Your task to perform on an android device: change alarm snooze length Image 0: 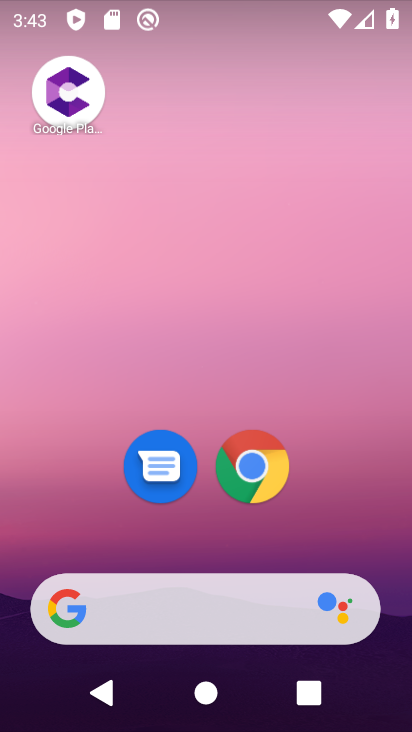
Step 0: drag from (205, 641) to (327, 199)
Your task to perform on an android device: change alarm snooze length Image 1: 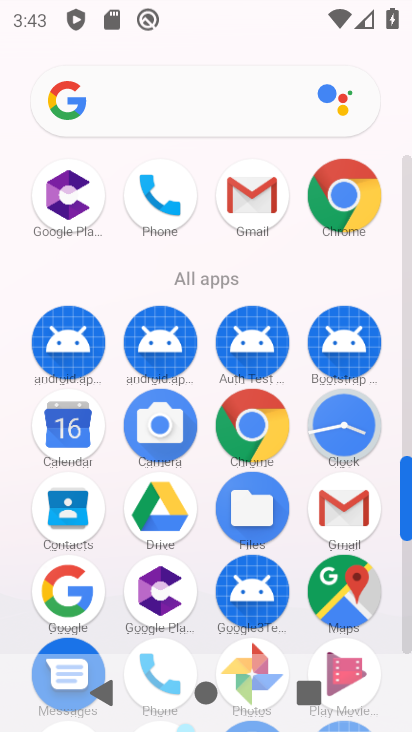
Step 1: click (335, 427)
Your task to perform on an android device: change alarm snooze length Image 2: 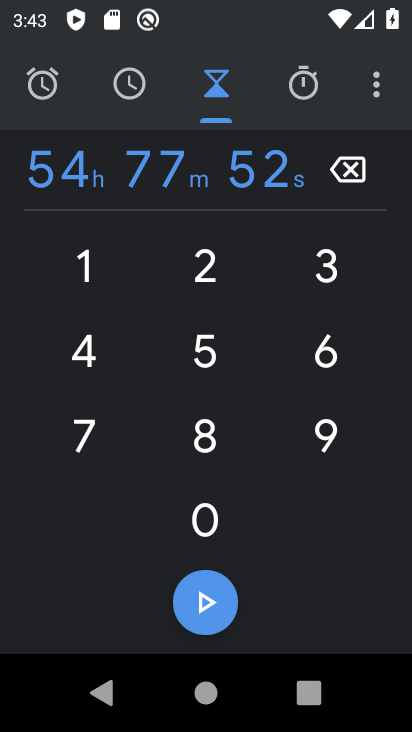
Step 2: click (366, 91)
Your task to perform on an android device: change alarm snooze length Image 3: 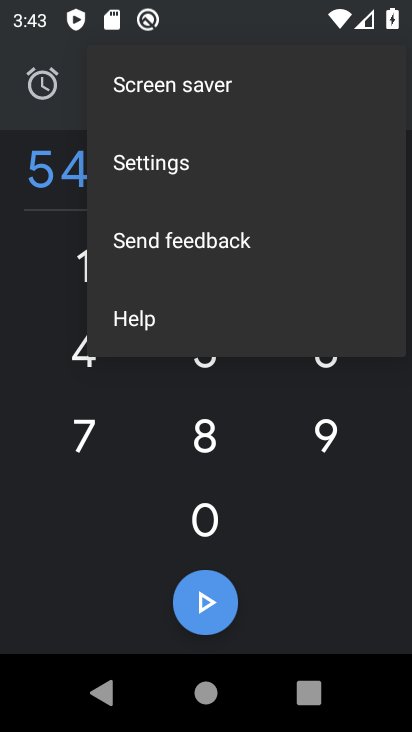
Step 3: click (226, 163)
Your task to perform on an android device: change alarm snooze length Image 4: 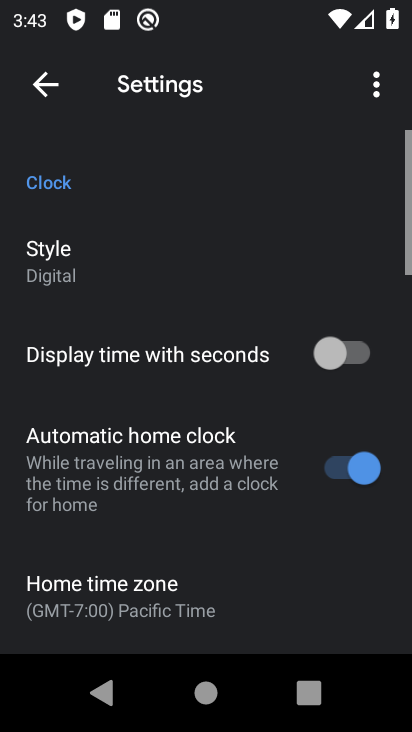
Step 4: drag from (157, 521) to (240, 180)
Your task to perform on an android device: change alarm snooze length Image 5: 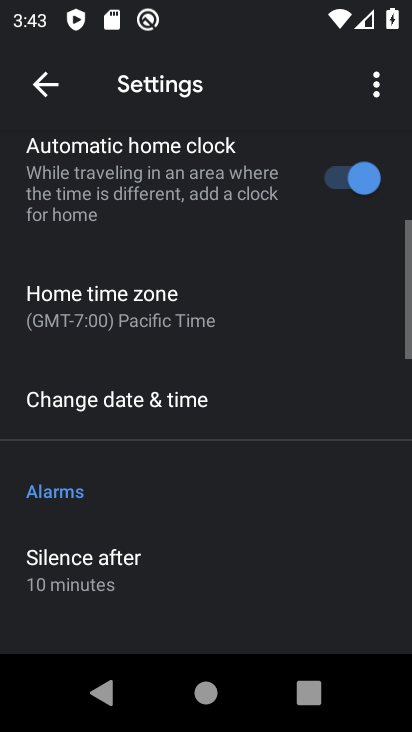
Step 5: drag from (129, 533) to (214, 205)
Your task to perform on an android device: change alarm snooze length Image 6: 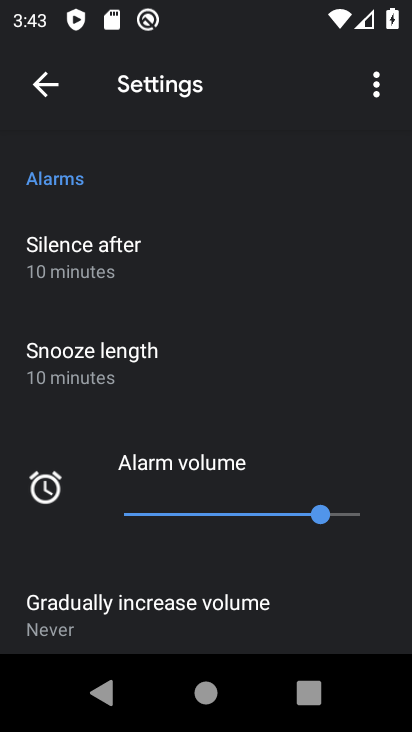
Step 6: click (193, 527)
Your task to perform on an android device: change alarm snooze length Image 7: 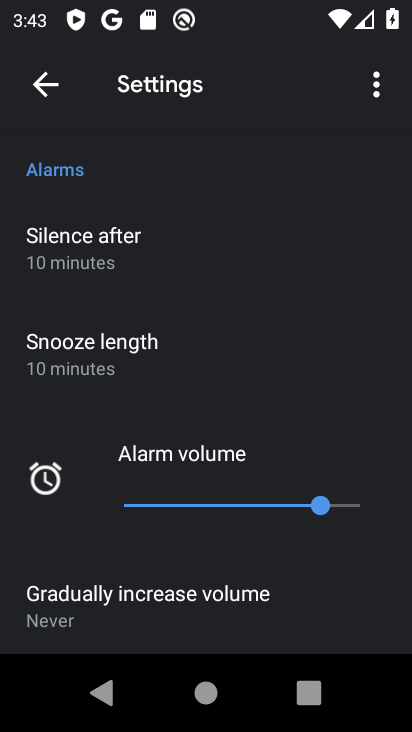
Step 7: click (148, 366)
Your task to perform on an android device: change alarm snooze length Image 8: 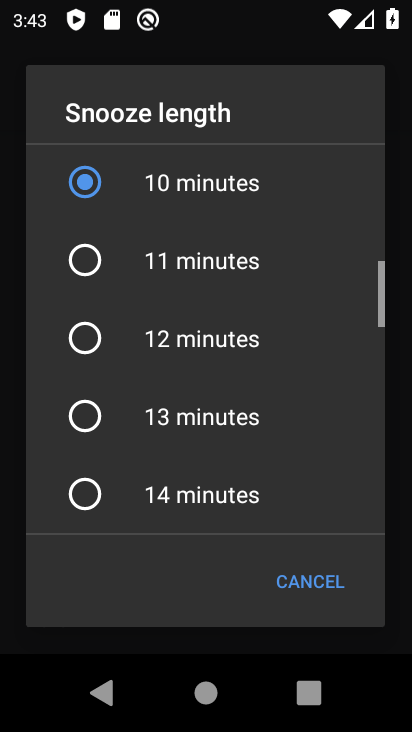
Step 8: drag from (147, 502) to (229, 175)
Your task to perform on an android device: change alarm snooze length Image 9: 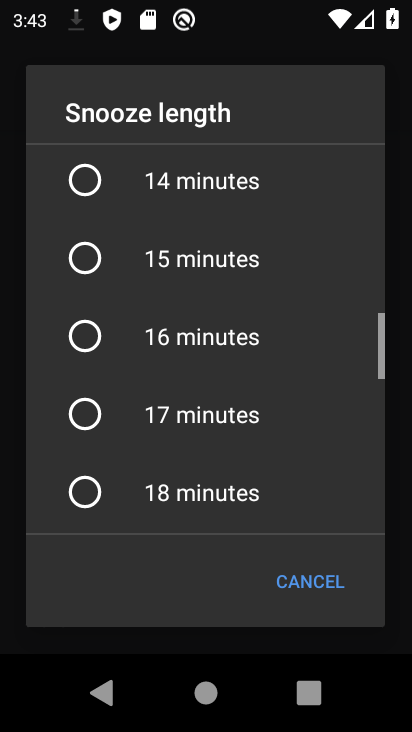
Step 9: drag from (143, 503) to (254, 263)
Your task to perform on an android device: change alarm snooze length Image 10: 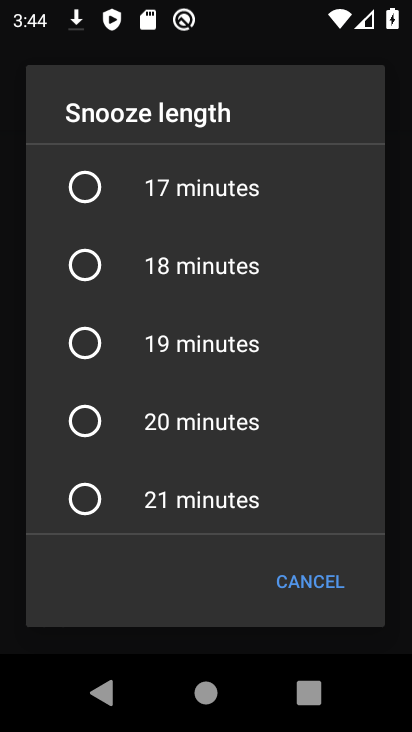
Step 10: click (161, 495)
Your task to perform on an android device: change alarm snooze length Image 11: 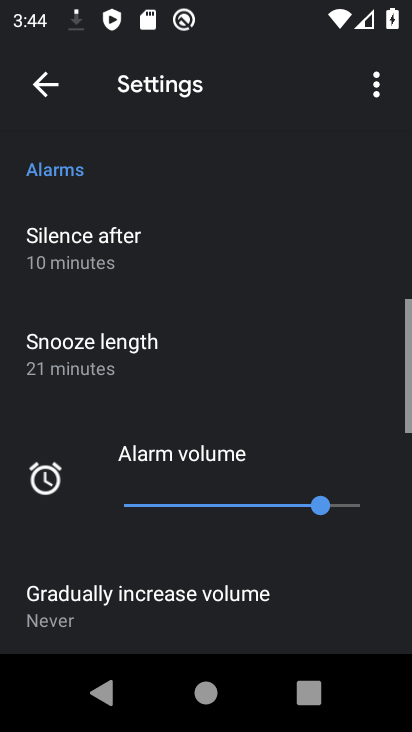
Step 11: task complete